Your task to perform on an android device: turn on bluetooth scan Image 0: 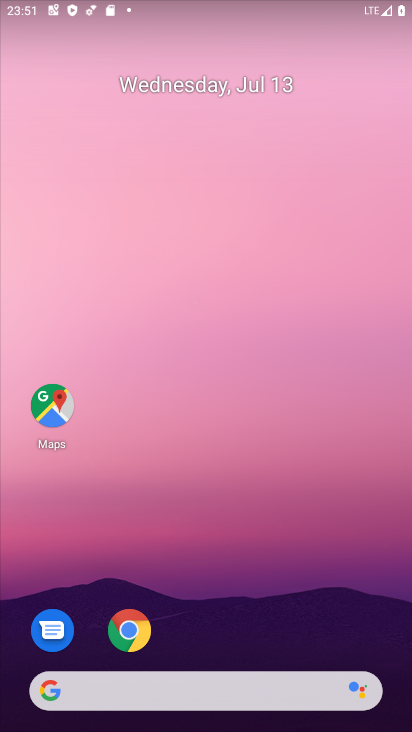
Step 0: drag from (349, 622) to (319, 249)
Your task to perform on an android device: turn on bluetooth scan Image 1: 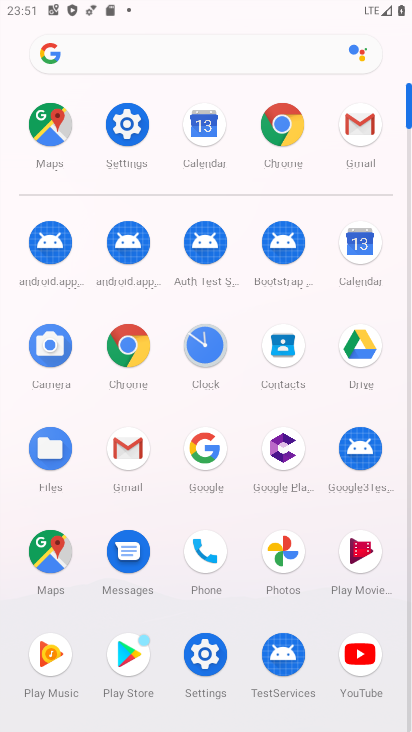
Step 1: click (200, 653)
Your task to perform on an android device: turn on bluetooth scan Image 2: 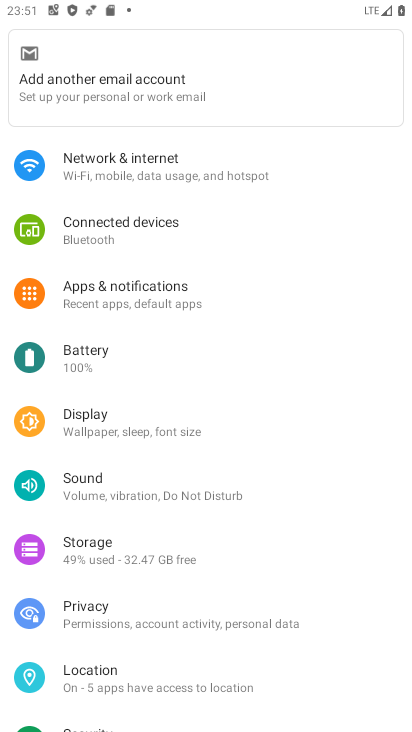
Step 2: drag from (322, 312) to (326, 413)
Your task to perform on an android device: turn on bluetooth scan Image 3: 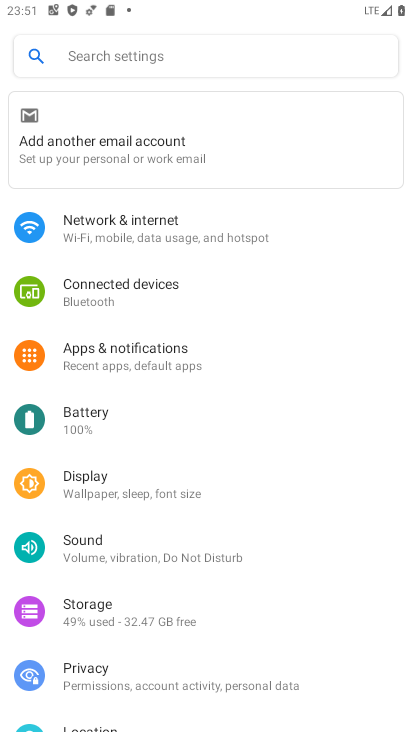
Step 3: drag from (341, 313) to (346, 418)
Your task to perform on an android device: turn on bluetooth scan Image 4: 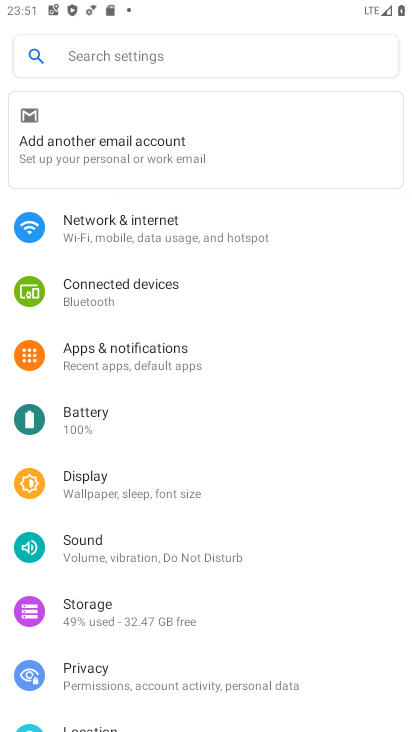
Step 4: drag from (367, 556) to (367, 434)
Your task to perform on an android device: turn on bluetooth scan Image 5: 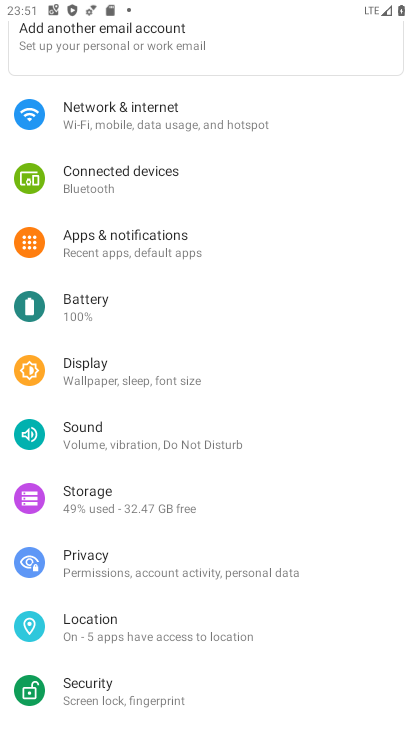
Step 5: drag from (359, 608) to (355, 438)
Your task to perform on an android device: turn on bluetooth scan Image 6: 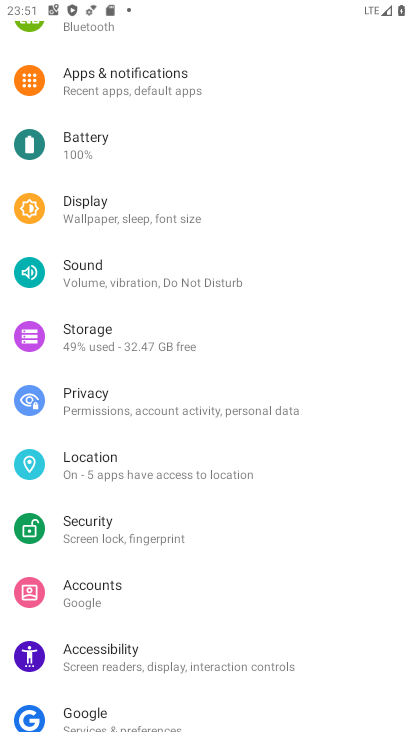
Step 6: drag from (353, 551) to (352, 383)
Your task to perform on an android device: turn on bluetooth scan Image 7: 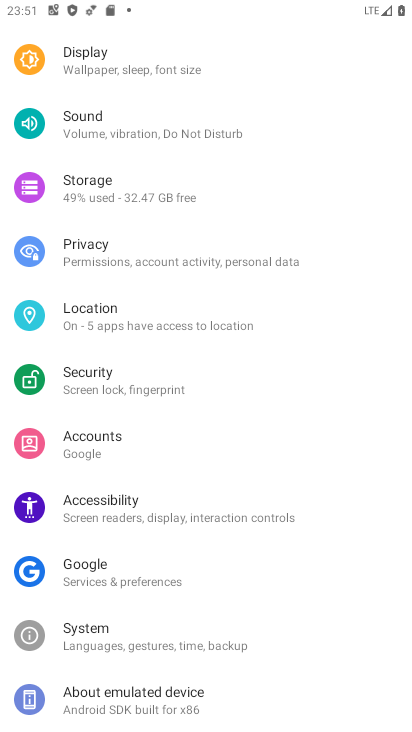
Step 7: drag from (354, 586) to (355, 399)
Your task to perform on an android device: turn on bluetooth scan Image 8: 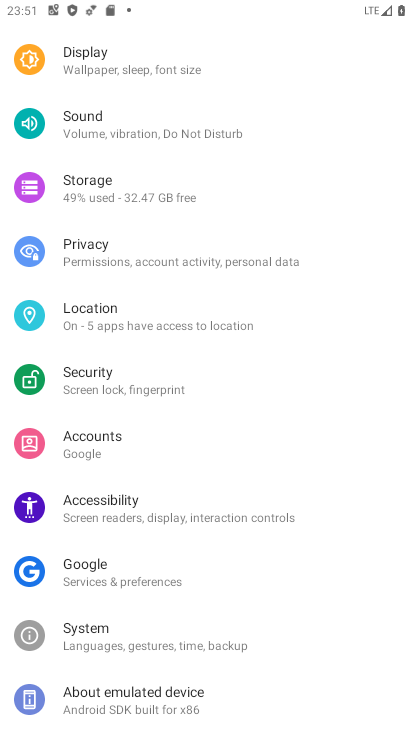
Step 8: drag from (334, 320) to (334, 453)
Your task to perform on an android device: turn on bluetooth scan Image 9: 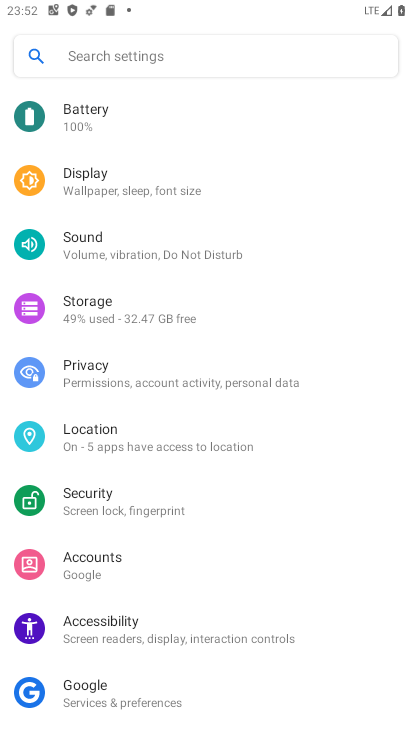
Step 9: drag from (350, 295) to (340, 404)
Your task to perform on an android device: turn on bluetooth scan Image 10: 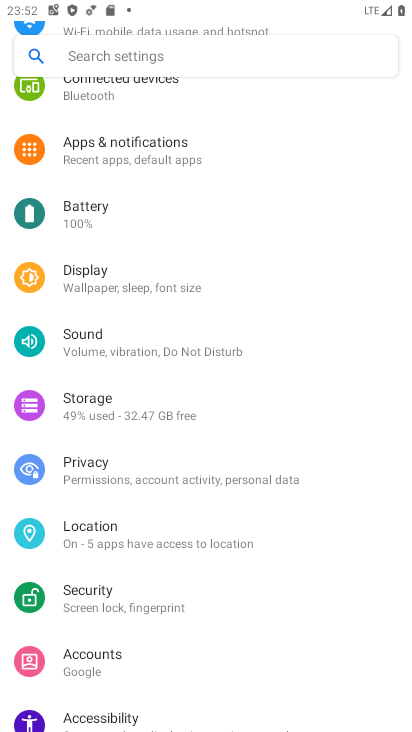
Step 10: drag from (338, 273) to (339, 407)
Your task to perform on an android device: turn on bluetooth scan Image 11: 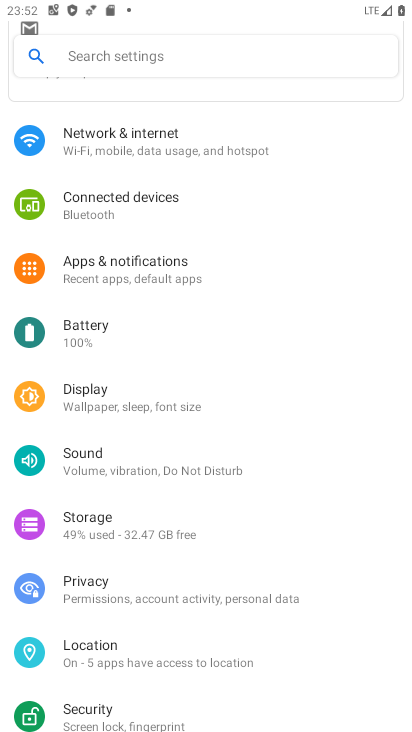
Step 11: drag from (346, 278) to (347, 438)
Your task to perform on an android device: turn on bluetooth scan Image 12: 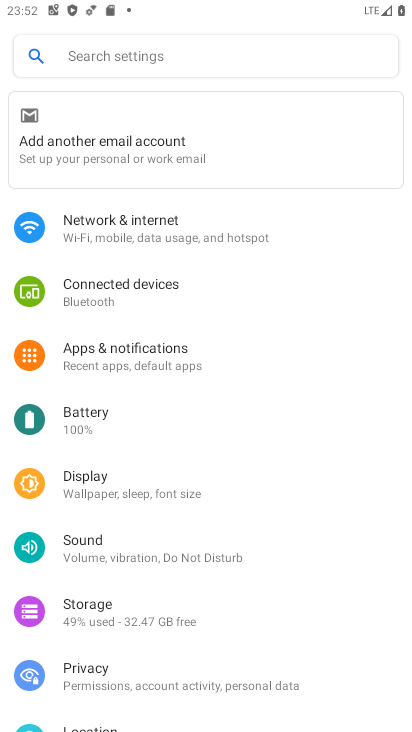
Step 12: drag from (355, 557) to (356, 452)
Your task to perform on an android device: turn on bluetooth scan Image 13: 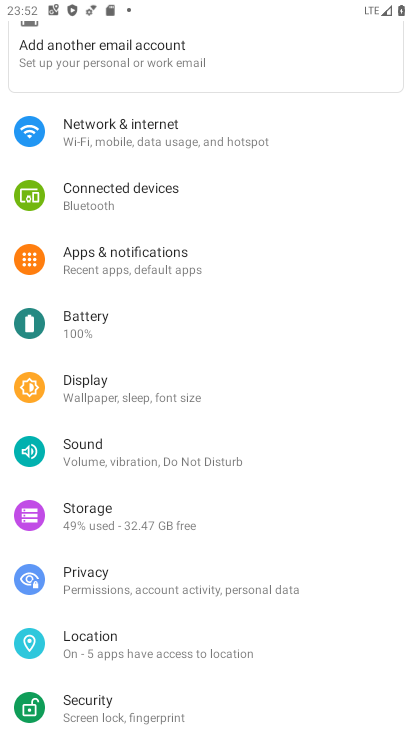
Step 13: drag from (347, 539) to (345, 466)
Your task to perform on an android device: turn on bluetooth scan Image 14: 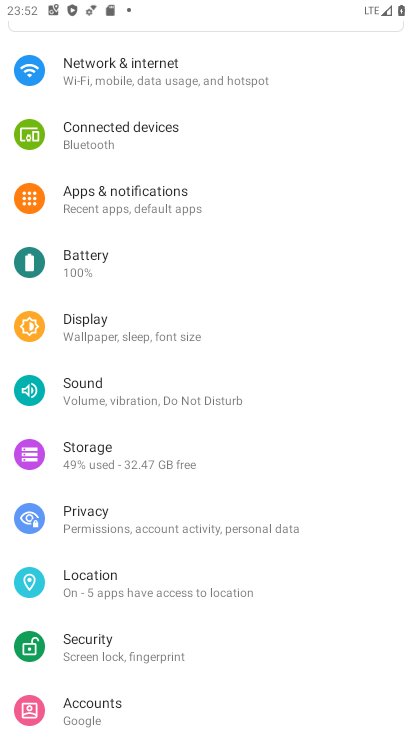
Step 14: drag from (343, 274) to (335, 410)
Your task to perform on an android device: turn on bluetooth scan Image 15: 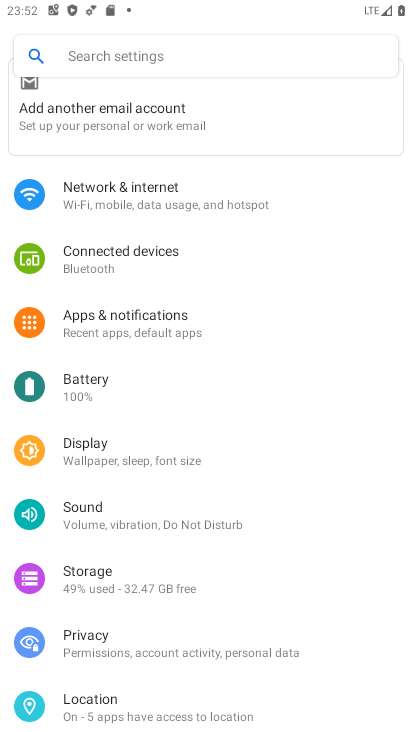
Step 15: drag from (331, 301) to (332, 401)
Your task to perform on an android device: turn on bluetooth scan Image 16: 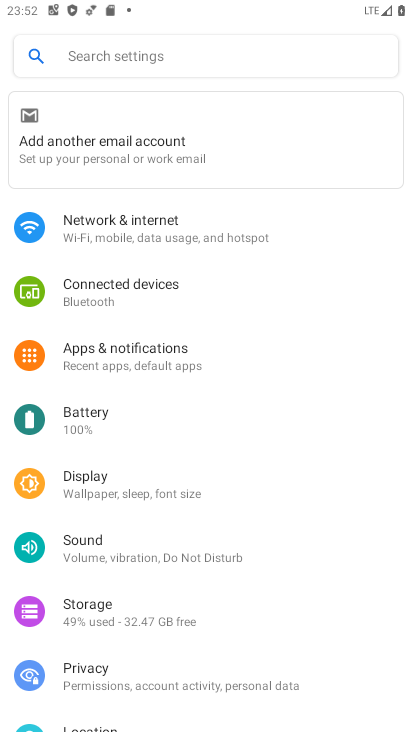
Step 16: drag from (343, 311) to (343, 401)
Your task to perform on an android device: turn on bluetooth scan Image 17: 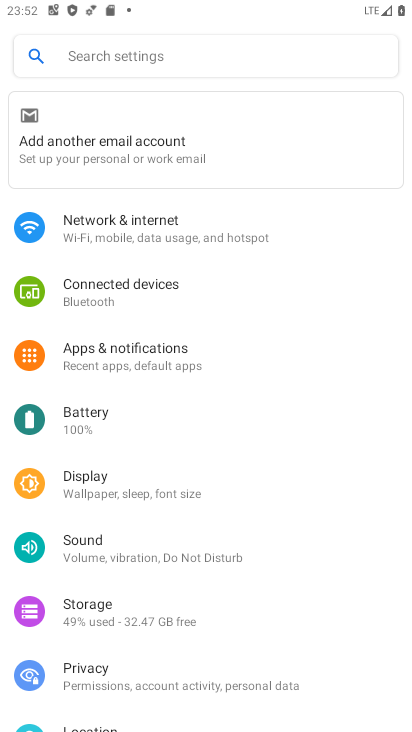
Step 17: drag from (346, 451) to (352, 409)
Your task to perform on an android device: turn on bluetooth scan Image 18: 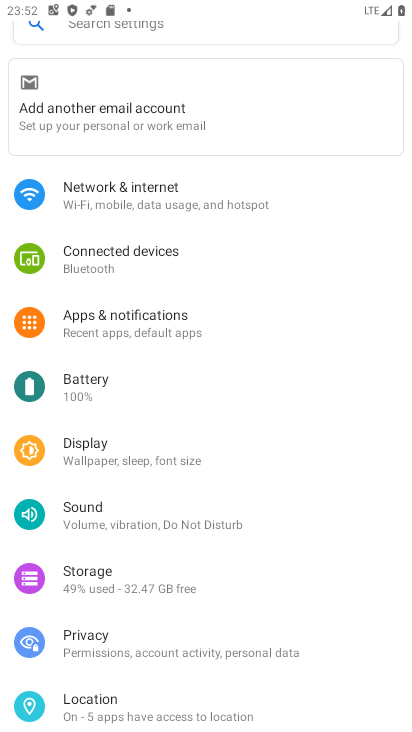
Step 18: drag from (363, 565) to (364, 276)
Your task to perform on an android device: turn on bluetooth scan Image 19: 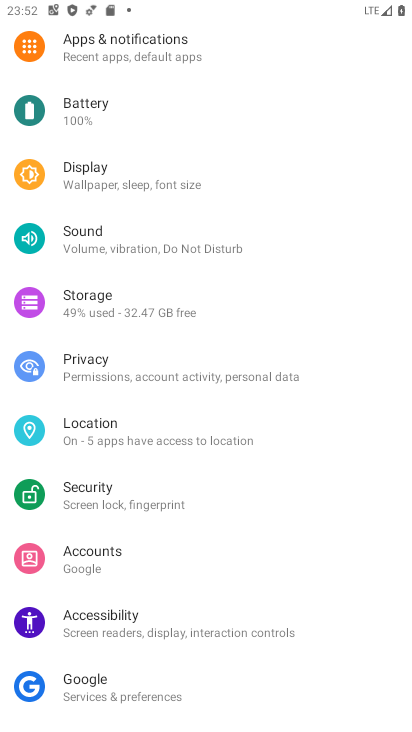
Step 19: drag from (360, 212) to (354, 268)
Your task to perform on an android device: turn on bluetooth scan Image 20: 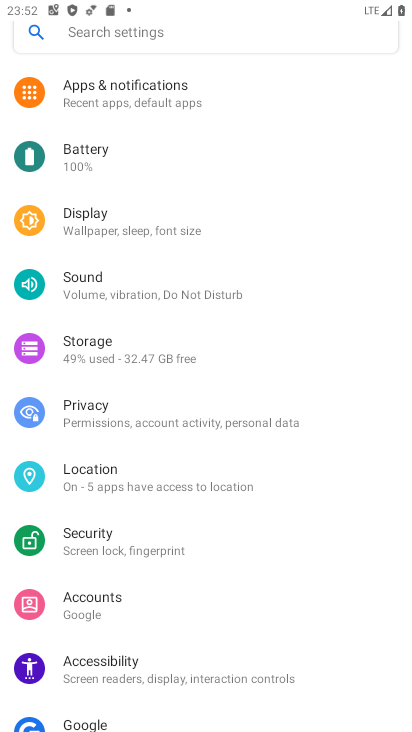
Step 20: click (239, 480)
Your task to perform on an android device: turn on bluetooth scan Image 21: 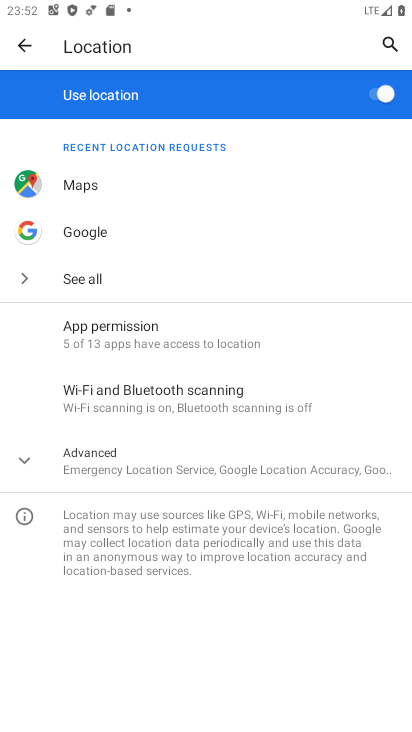
Step 21: click (249, 391)
Your task to perform on an android device: turn on bluetooth scan Image 22: 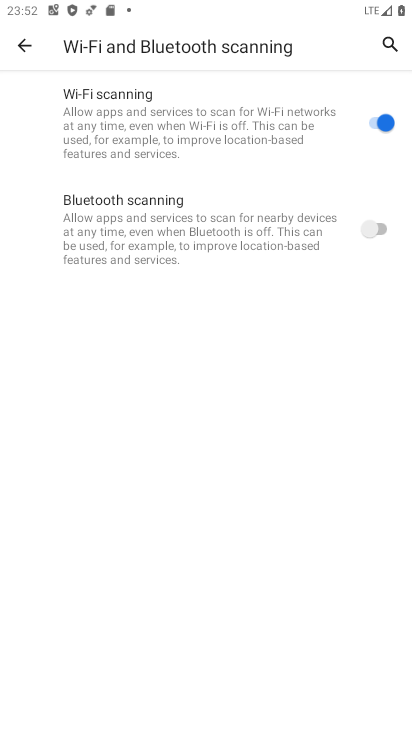
Step 22: click (383, 225)
Your task to perform on an android device: turn on bluetooth scan Image 23: 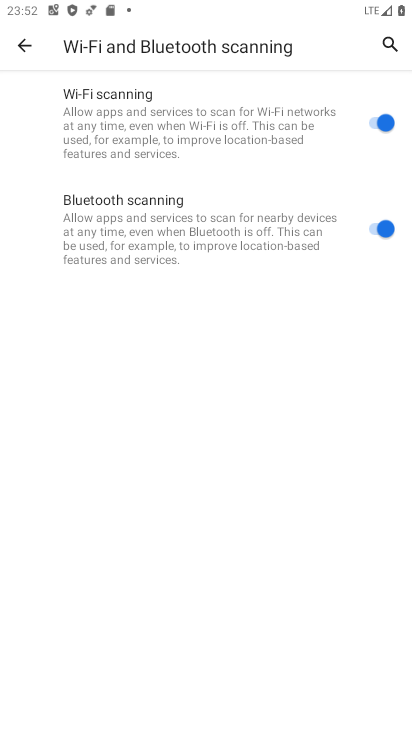
Step 23: task complete